Your task to perform on an android device: star an email in the gmail app Image 0: 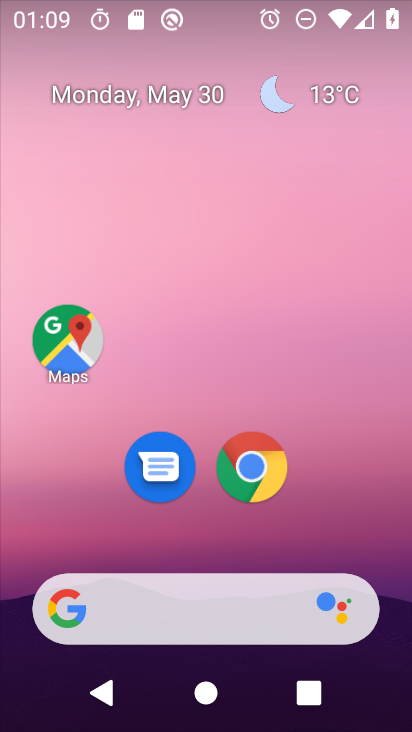
Step 0: drag from (207, 543) to (210, 171)
Your task to perform on an android device: star an email in the gmail app Image 1: 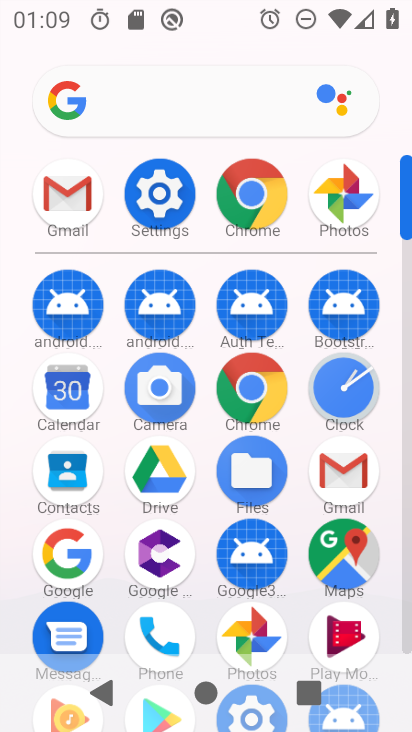
Step 1: click (326, 464)
Your task to perform on an android device: star an email in the gmail app Image 2: 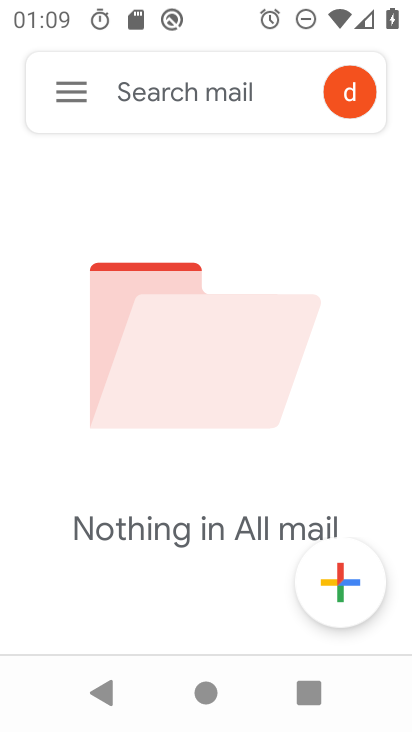
Step 2: click (57, 76)
Your task to perform on an android device: star an email in the gmail app Image 3: 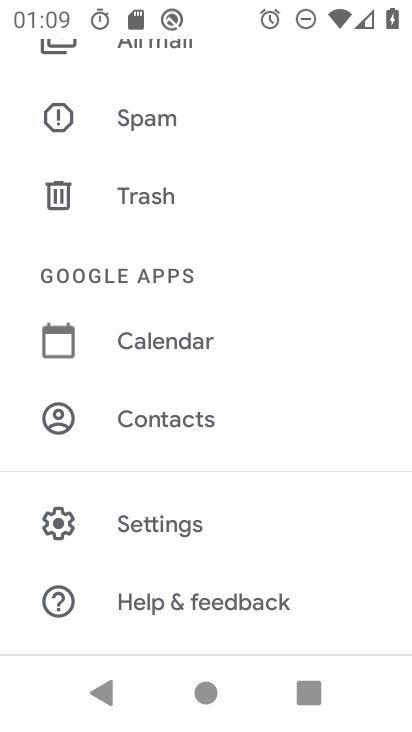
Step 3: drag from (173, 183) to (188, 388)
Your task to perform on an android device: star an email in the gmail app Image 4: 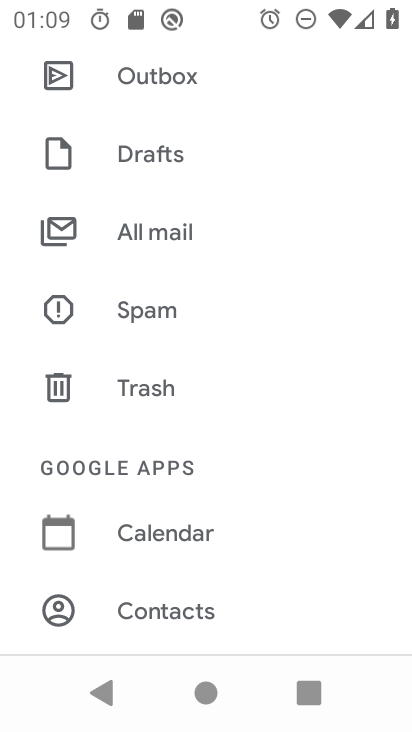
Step 4: click (192, 217)
Your task to perform on an android device: star an email in the gmail app Image 5: 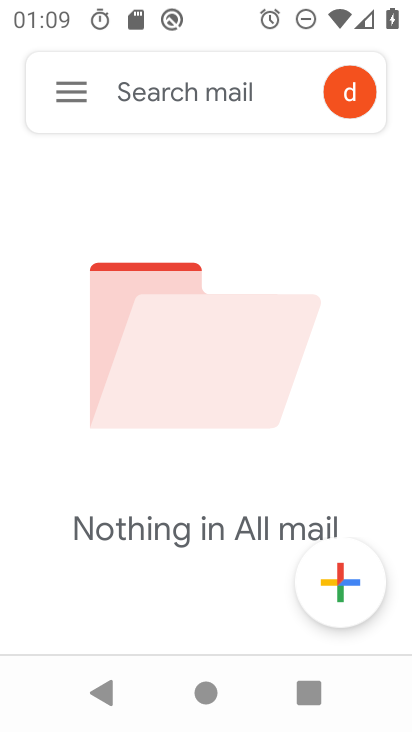
Step 5: task complete